Your task to perform on an android device: Go to calendar. Show me events next week Image 0: 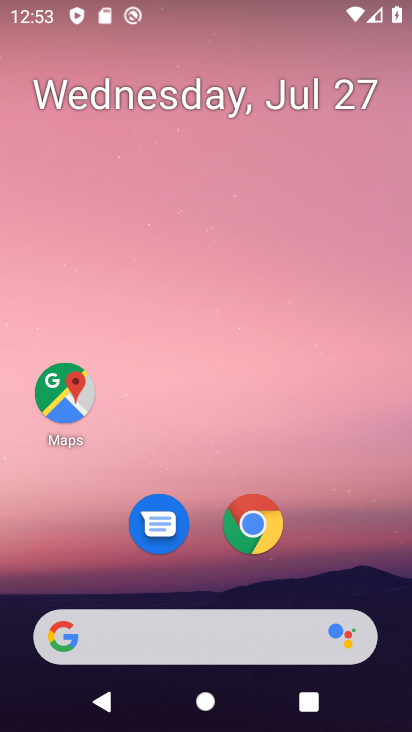
Step 0: drag from (349, 556) to (337, 41)
Your task to perform on an android device: Go to calendar. Show me events next week Image 1: 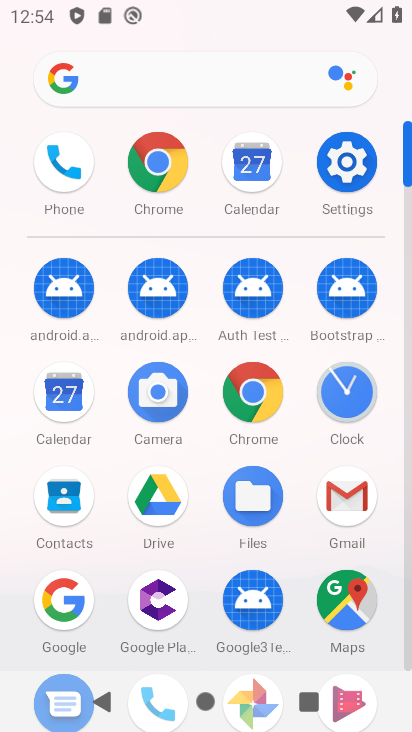
Step 1: click (72, 390)
Your task to perform on an android device: Go to calendar. Show me events next week Image 2: 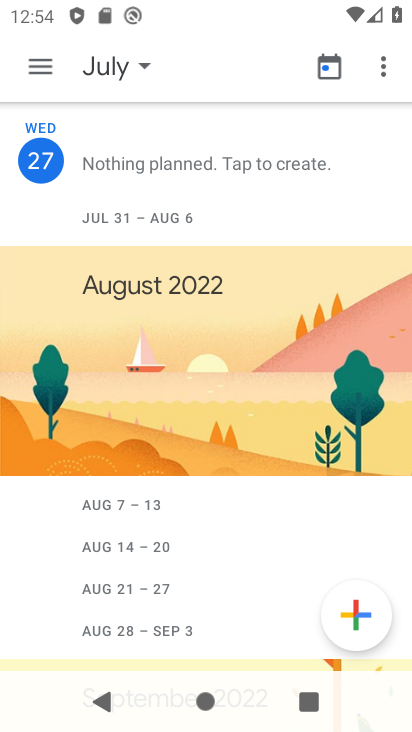
Step 2: click (34, 62)
Your task to perform on an android device: Go to calendar. Show me events next week Image 3: 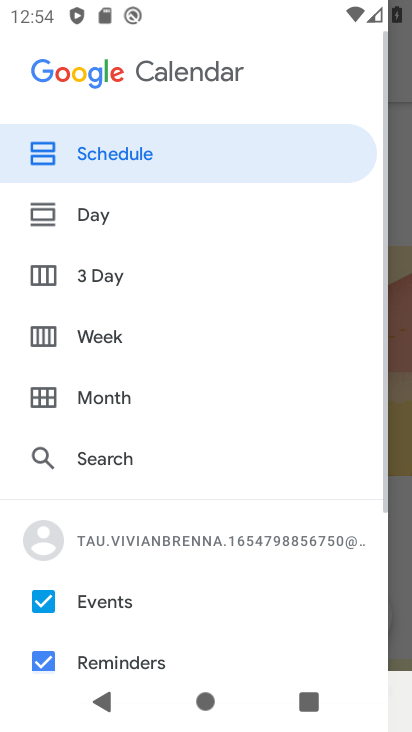
Step 3: click (49, 331)
Your task to perform on an android device: Go to calendar. Show me events next week Image 4: 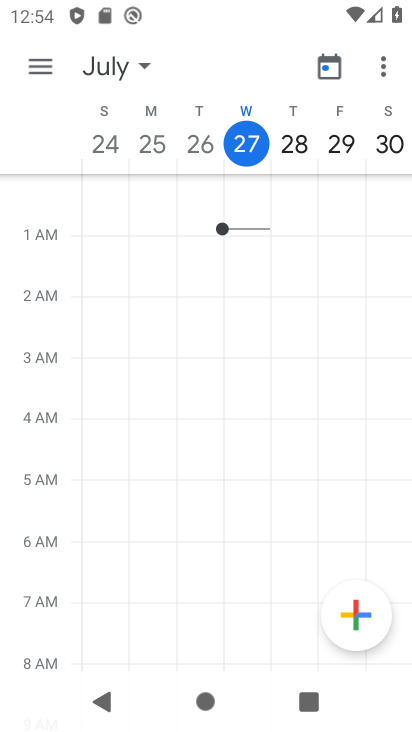
Step 4: task complete